Your task to perform on an android device: move a message to another label in the gmail app Image 0: 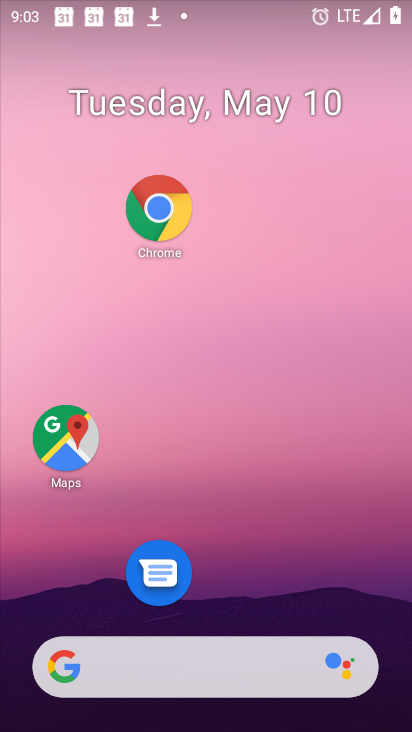
Step 0: drag from (291, 609) to (322, 222)
Your task to perform on an android device: move a message to another label in the gmail app Image 1: 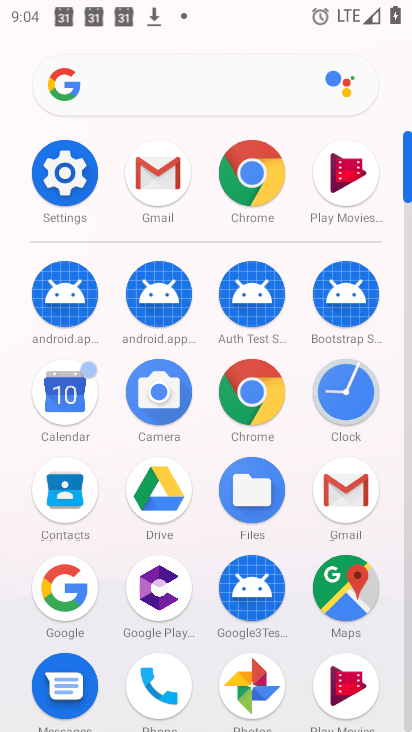
Step 1: click (153, 192)
Your task to perform on an android device: move a message to another label in the gmail app Image 2: 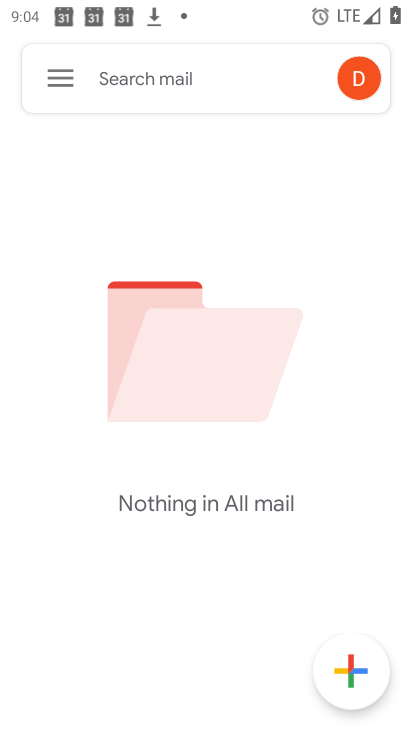
Step 2: click (43, 70)
Your task to perform on an android device: move a message to another label in the gmail app Image 3: 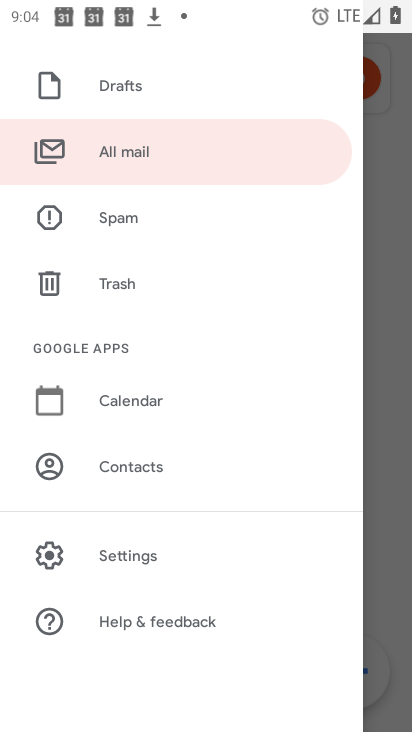
Step 3: click (122, 546)
Your task to perform on an android device: move a message to another label in the gmail app Image 4: 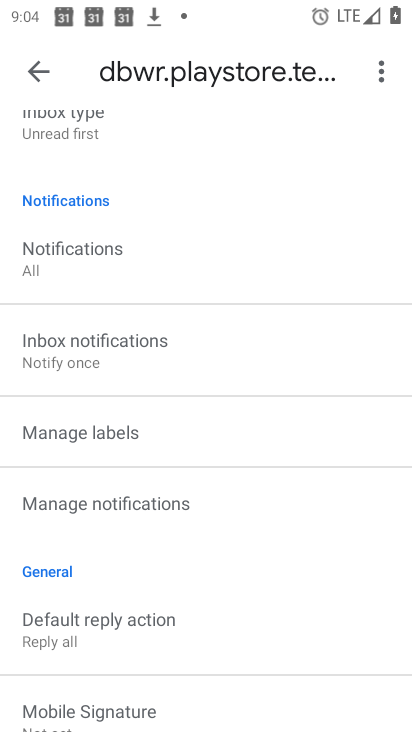
Step 4: drag from (156, 613) to (255, 264)
Your task to perform on an android device: move a message to another label in the gmail app Image 5: 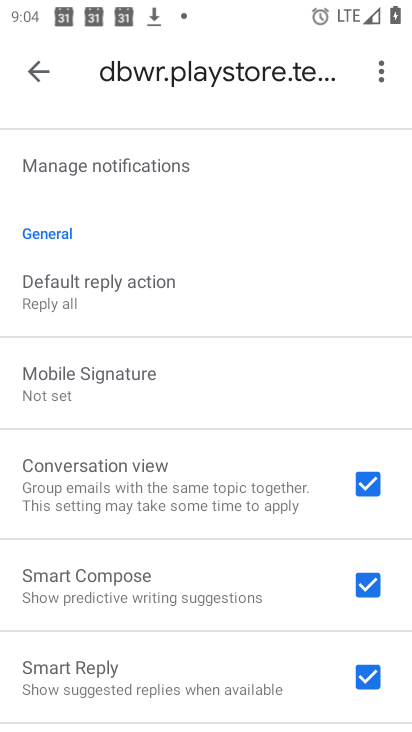
Step 5: drag from (97, 295) to (113, 531)
Your task to perform on an android device: move a message to another label in the gmail app Image 6: 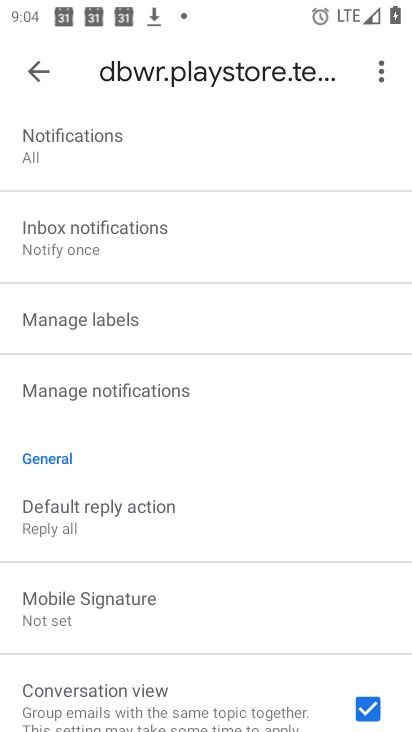
Step 6: click (111, 317)
Your task to perform on an android device: move a message to another label in the gmail app Image 7: 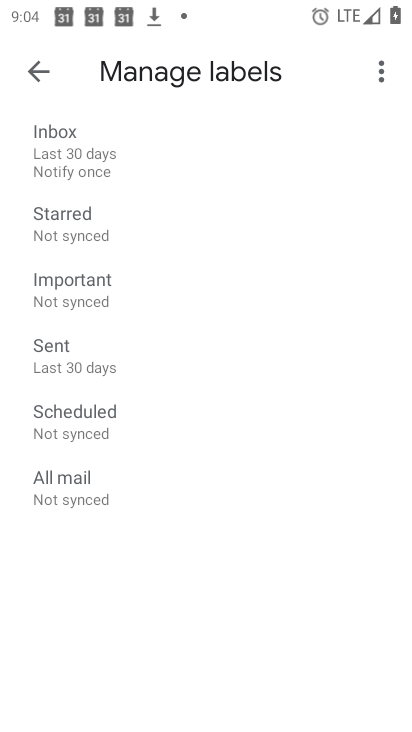
Step 7: click (116, 288)
Your task to perform on an android device: move a message to another label in the gmail app Image 8: 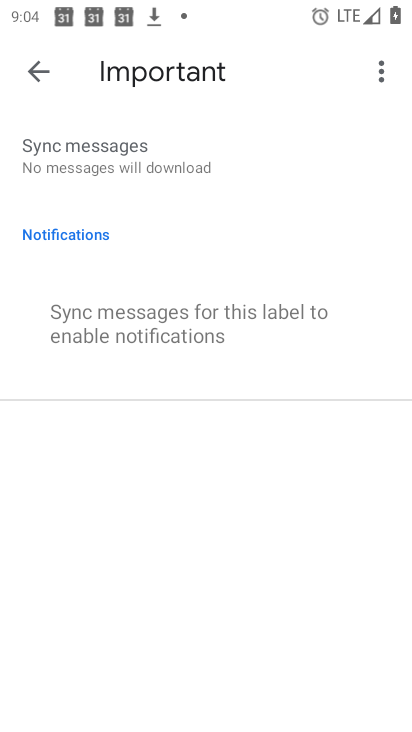
Step 8: task complete